Your task to perform on an android device: toggle improve location accuracy Image 0: 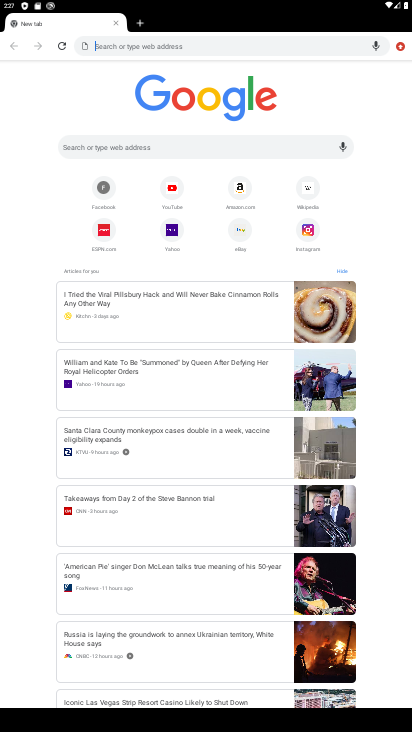
Step 0: press home button
Your task to perform on an android device: toggle improve location accuracy Image 1: 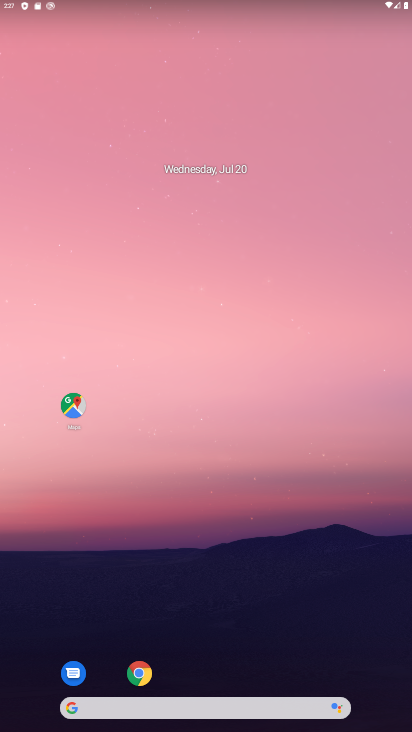
Step 1: drag from (217, 605) to (226, 90)
Your task to perform on an android device: toggle improve location accuracy Image 2: 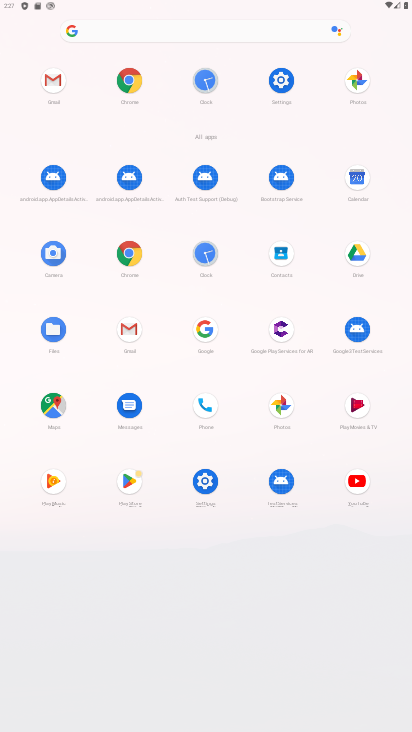
Step 2: click (206, 487)
Your task to perform on an android device: toggle improve location accuracy Image 3: 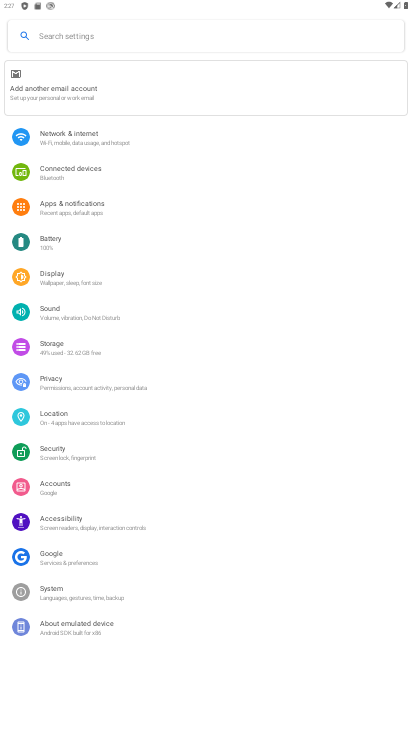
Step 3: click (83, 418)
Your task to perform on an android device: toggle improve location accuracy Image 4: 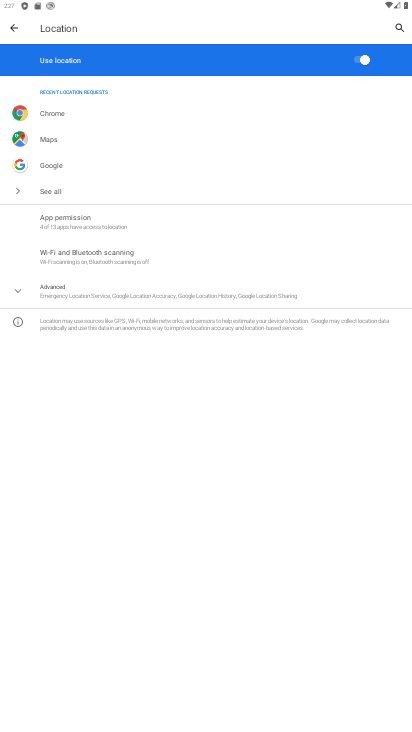
Step 4: click (60, 289)
Your task to perform on an android device: toggle improve location accuracy Image 5: 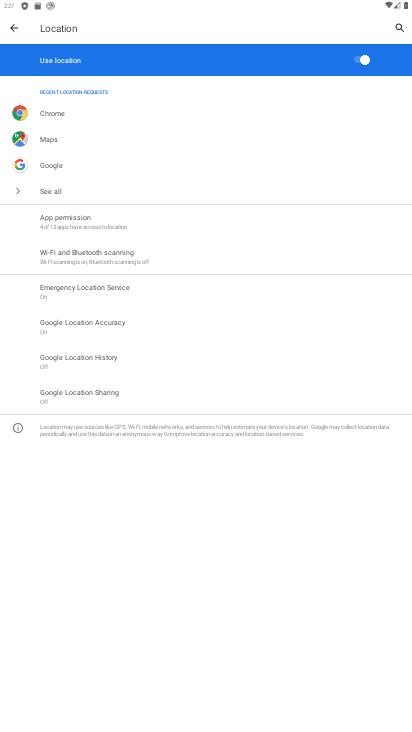
Step 5: click (103, 322)
Your task to perform on an android device: toggle improve location accuracy Image 6: 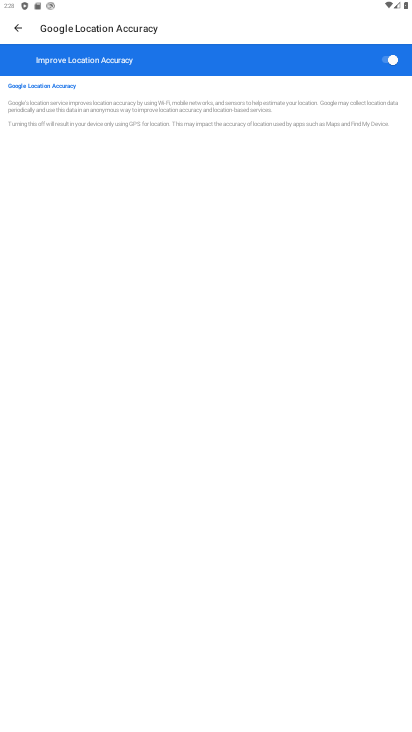
Step 6: click (384, 64)
Your task to perform on an android device: toggle improve location accuracy Image 7: 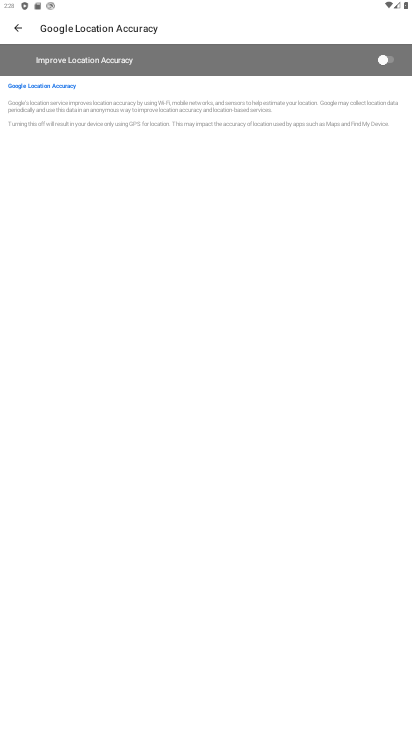
Step 7: task complete